Your task to perform on an android device: toggle sleep mode Image 0: 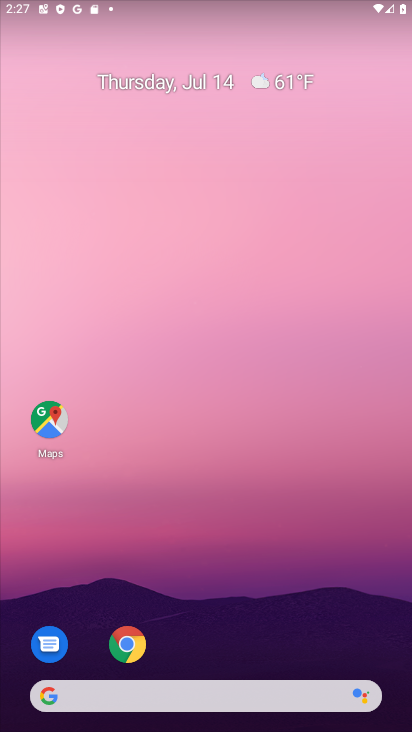
Step 0: drag from (238, 563) to (2, 146)
Your task to perform on an android device: toggle sleep mode Image 1: 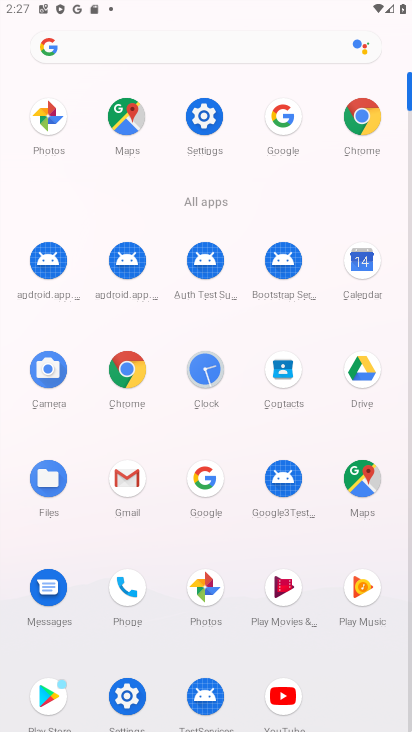
Step 1: click (207, 117)
Your task to perform on an android device: toggle sleep mode Image 2: 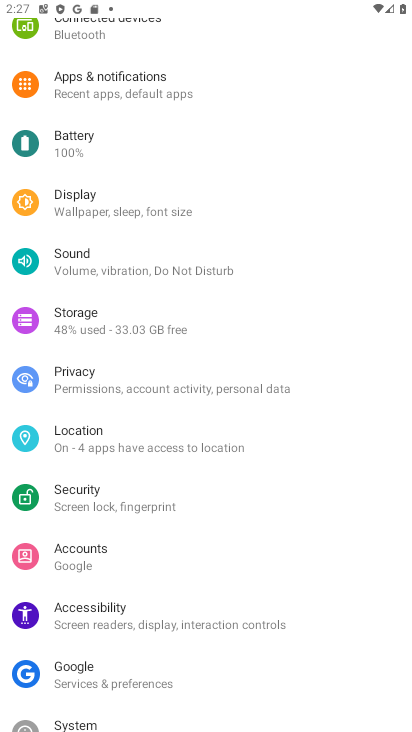
Step 2: drag from (147, 205) to (126, 571)
Your task to perform on an android device: toggle sleep mode Image 3: 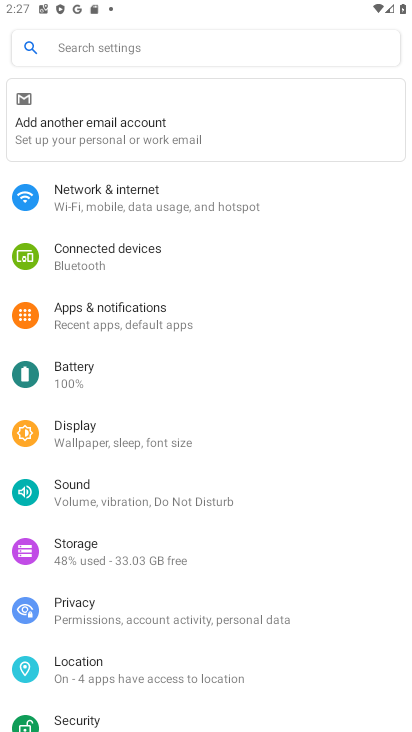
Step 3: click (41, 430)
Your task to perform on an android device: toggle sleep mode Image 4: 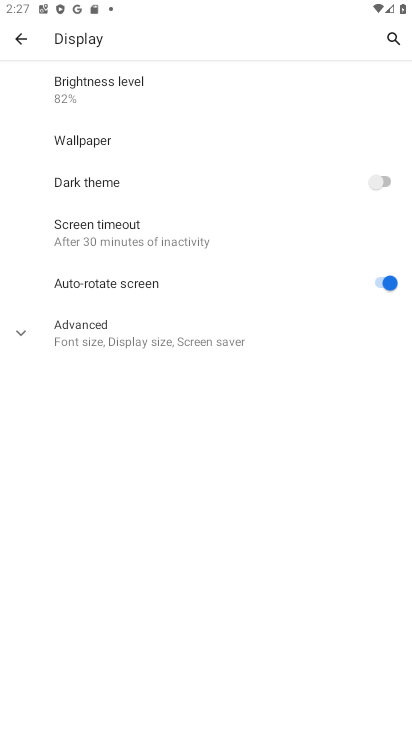
Step 4: click (88, 239)
Your task to perform on an android device: toggle sleep mode Image 5: 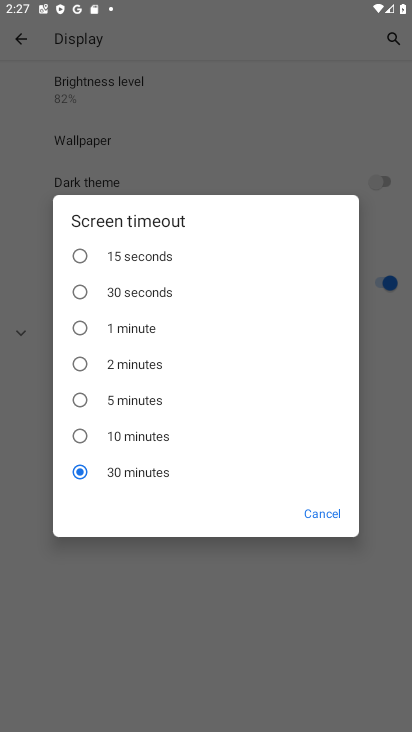
Step 5: click (88, 349)
Your task to perform on an android device: toggle sleep mode Image 6: 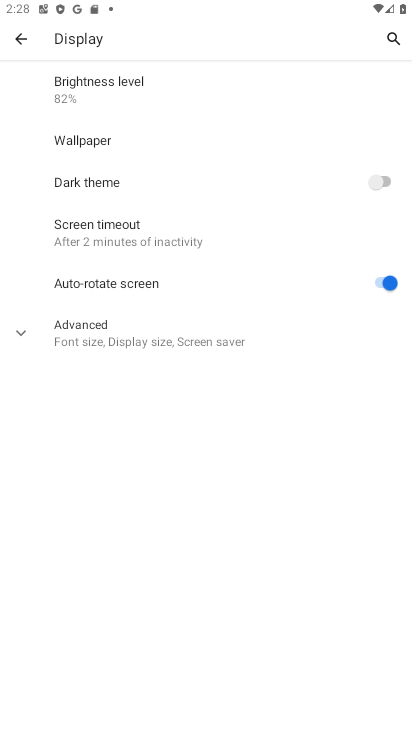
Step 6: task complete